Your task to perform on an android device: Go to sound settings Image 0: 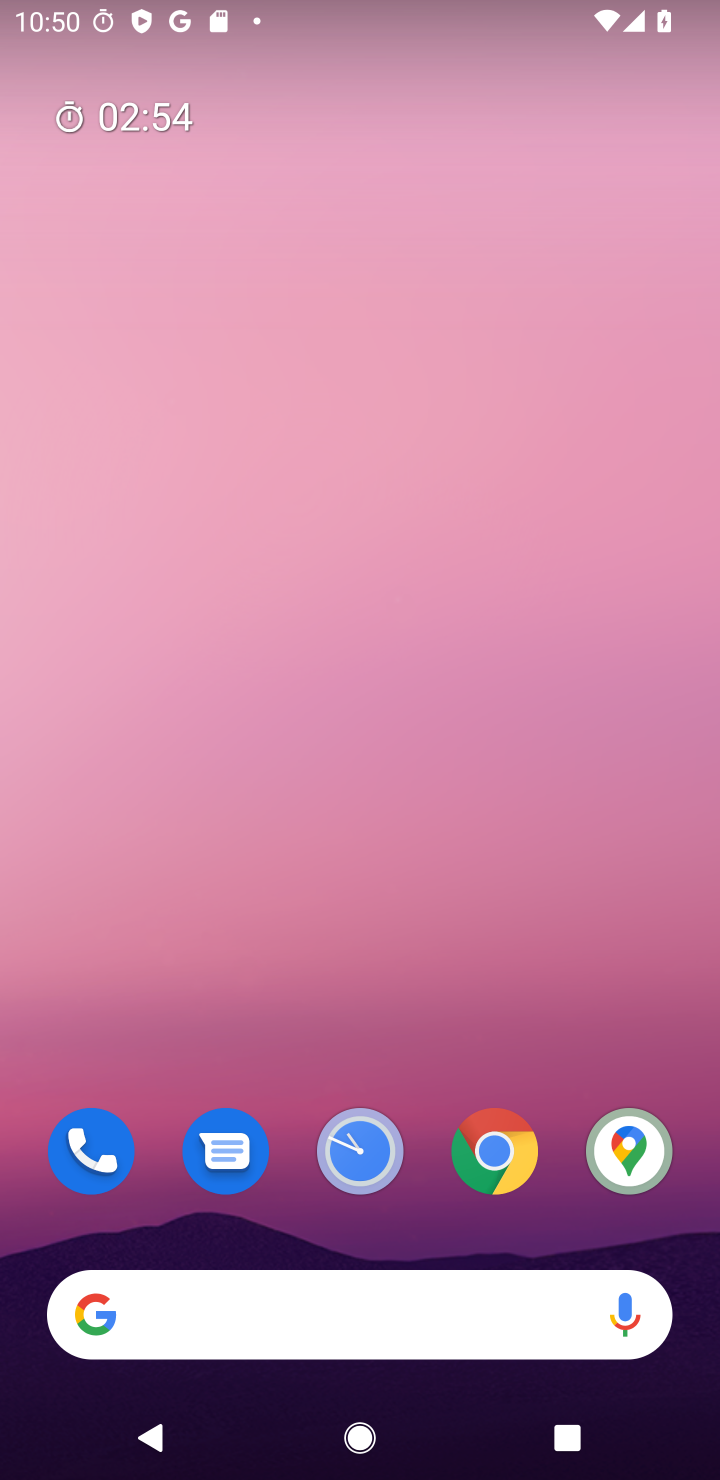
Step 0: drag from (596, 1081) to (537, 157)
Your task to perform on an android device: Go to sound settings Image 1: 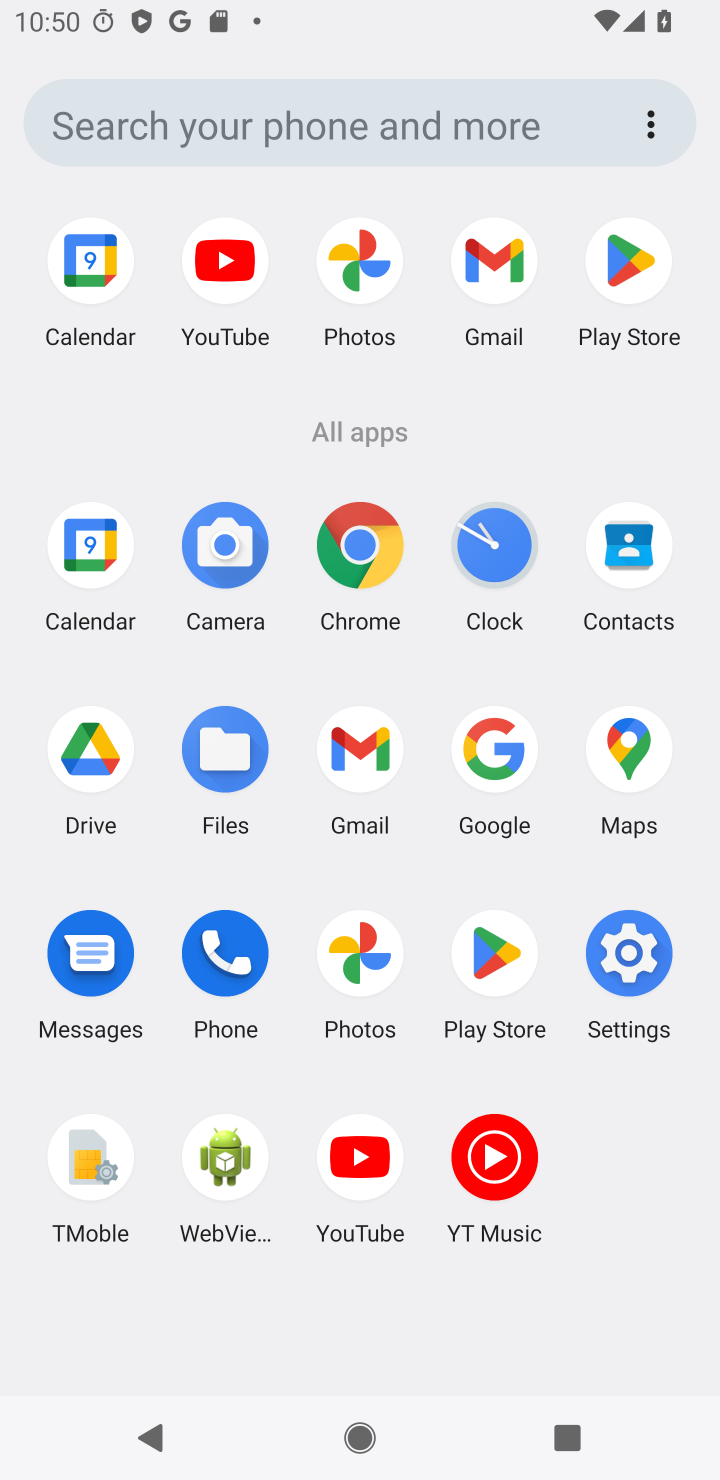
Step 1: click (630, 961)
Your task to perform on an android device: Go to sound settings Image 2: 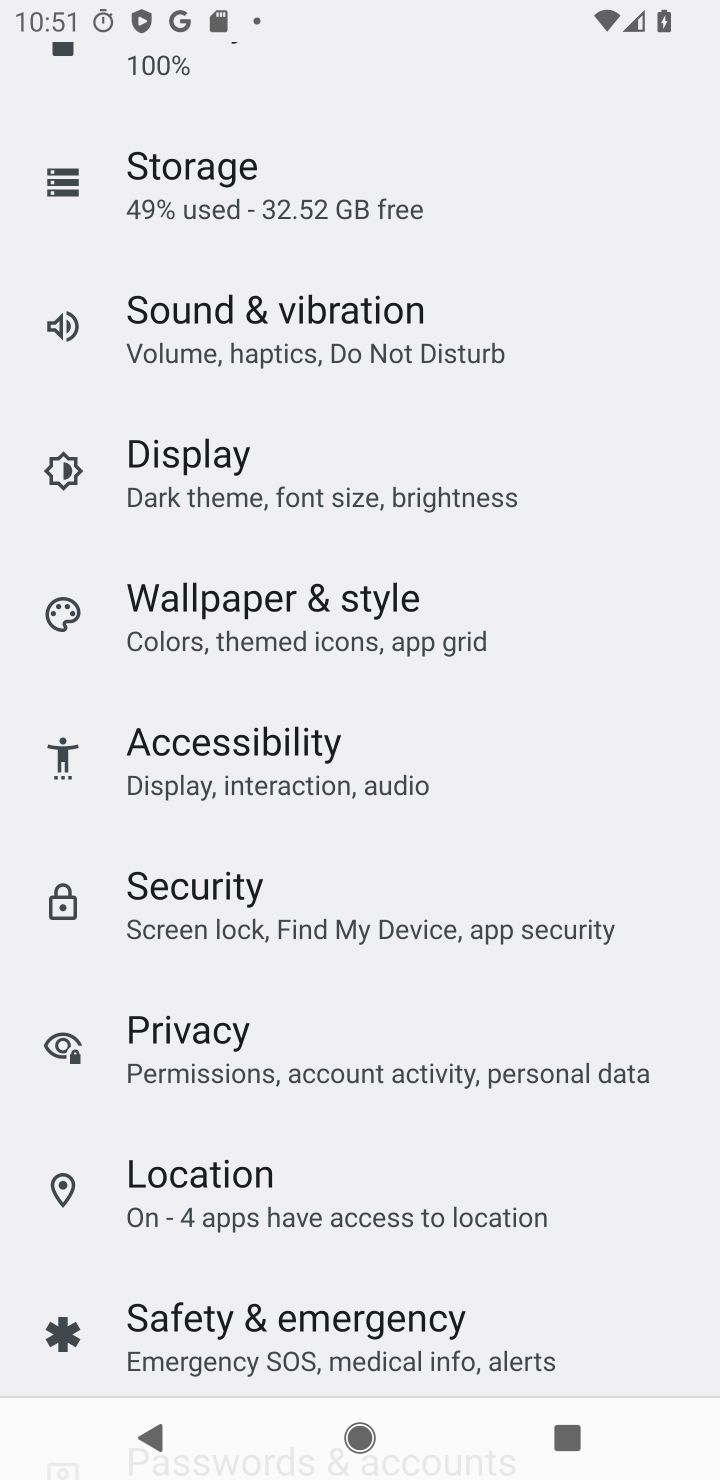
Step 2: drag from (438, 1220) to (277, 630)
Your task to perform on an android device: Go to sound settings Image 3: 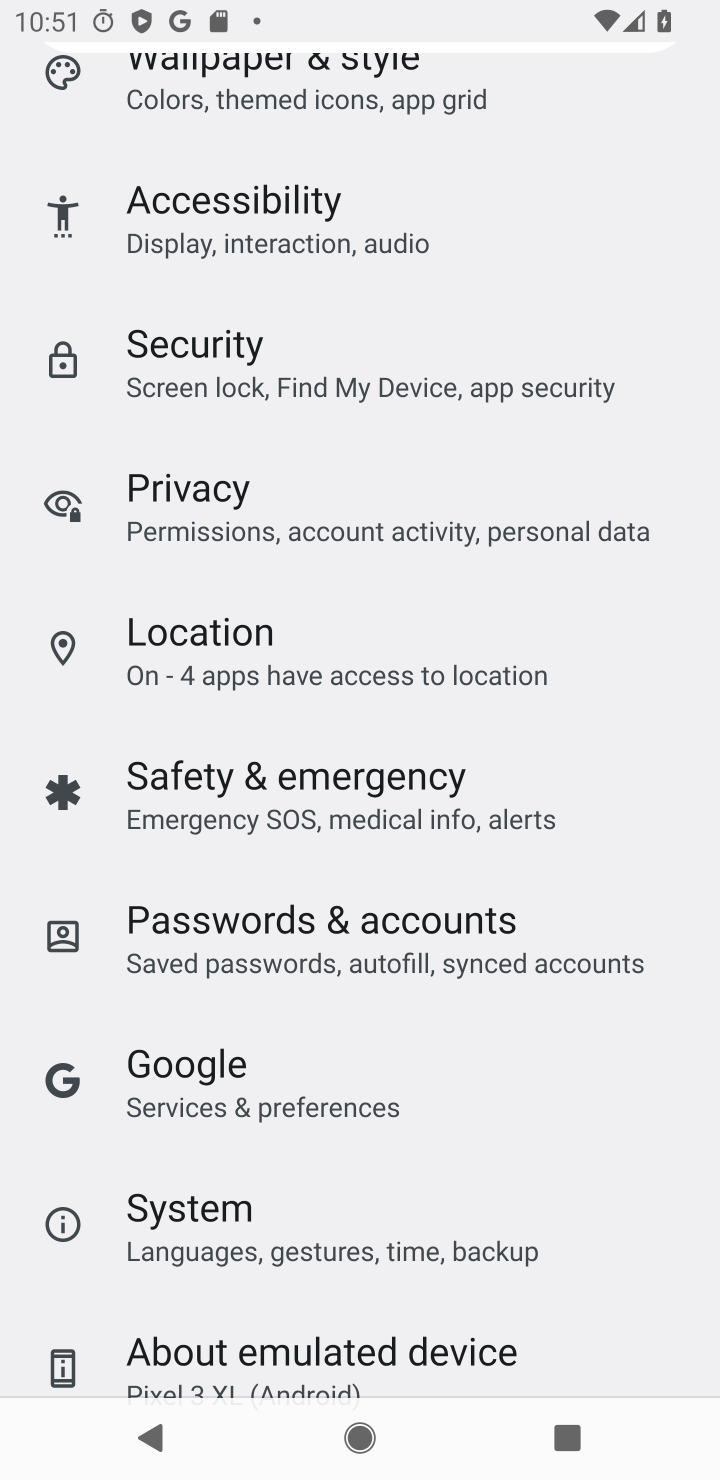
Step 3: drag from (465, 1304) to (127, 387)
Your task to perform on an android device: Go to sound settings Image 4: 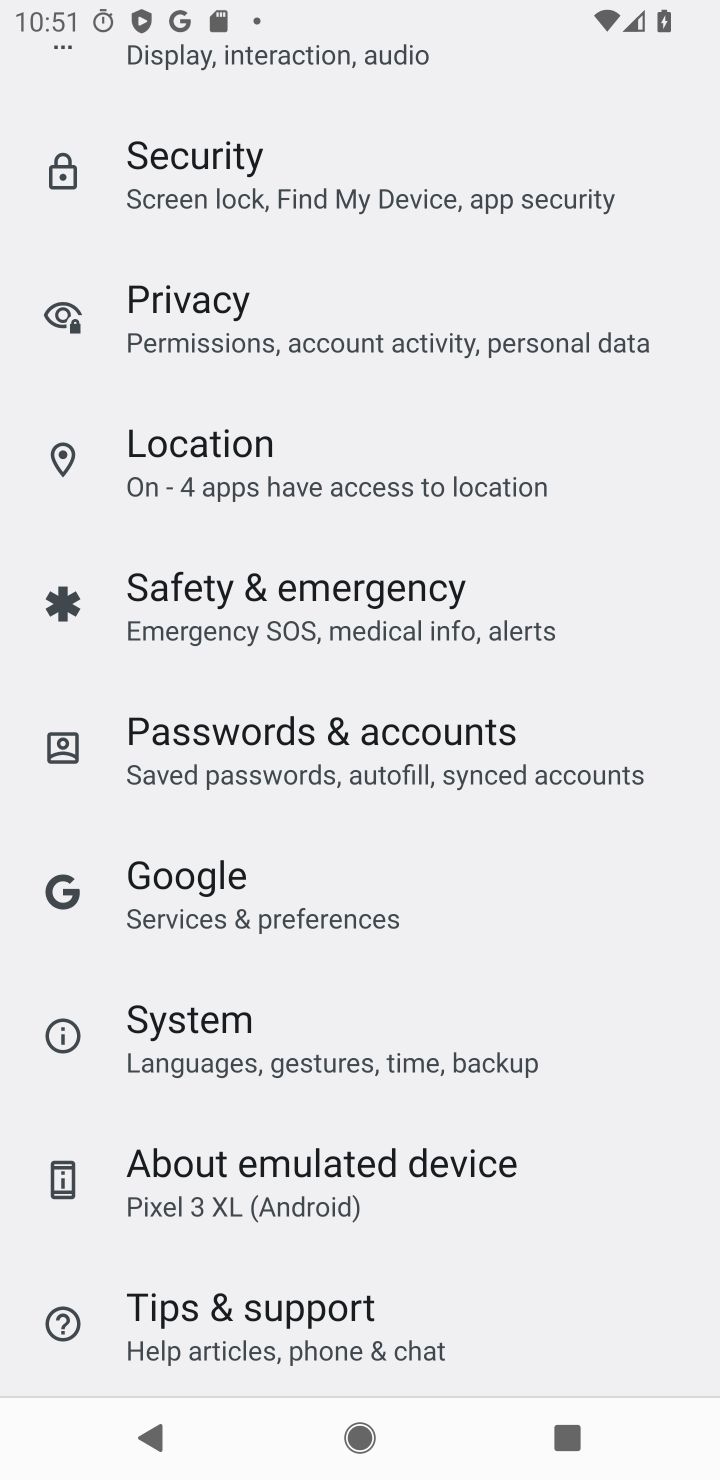
Step 4: drag from (203, 124) to (655, 1119)
Your task to perform on an android device: Go to sound settings Image 5: 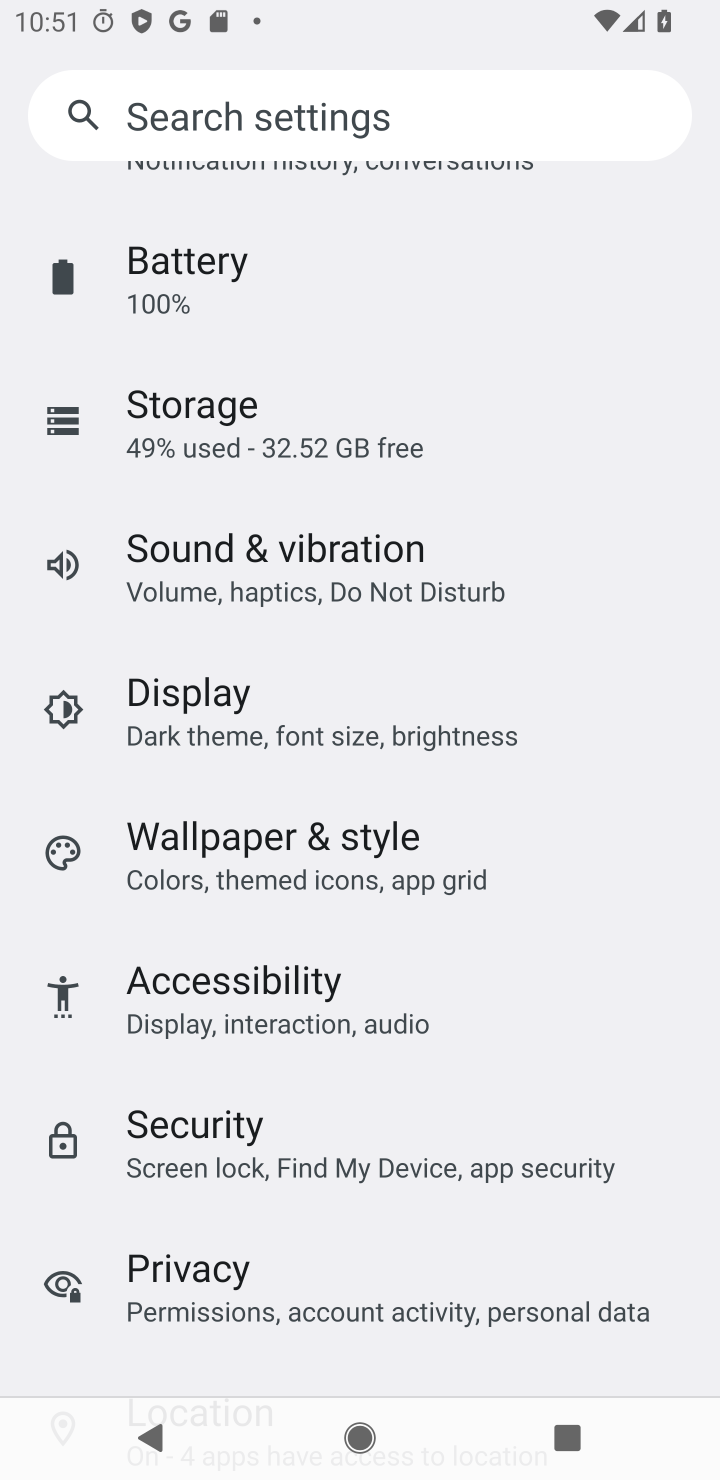
Step 5: click (426, 587)
Your task to perform on an android device: Go to sound settings Image 6: 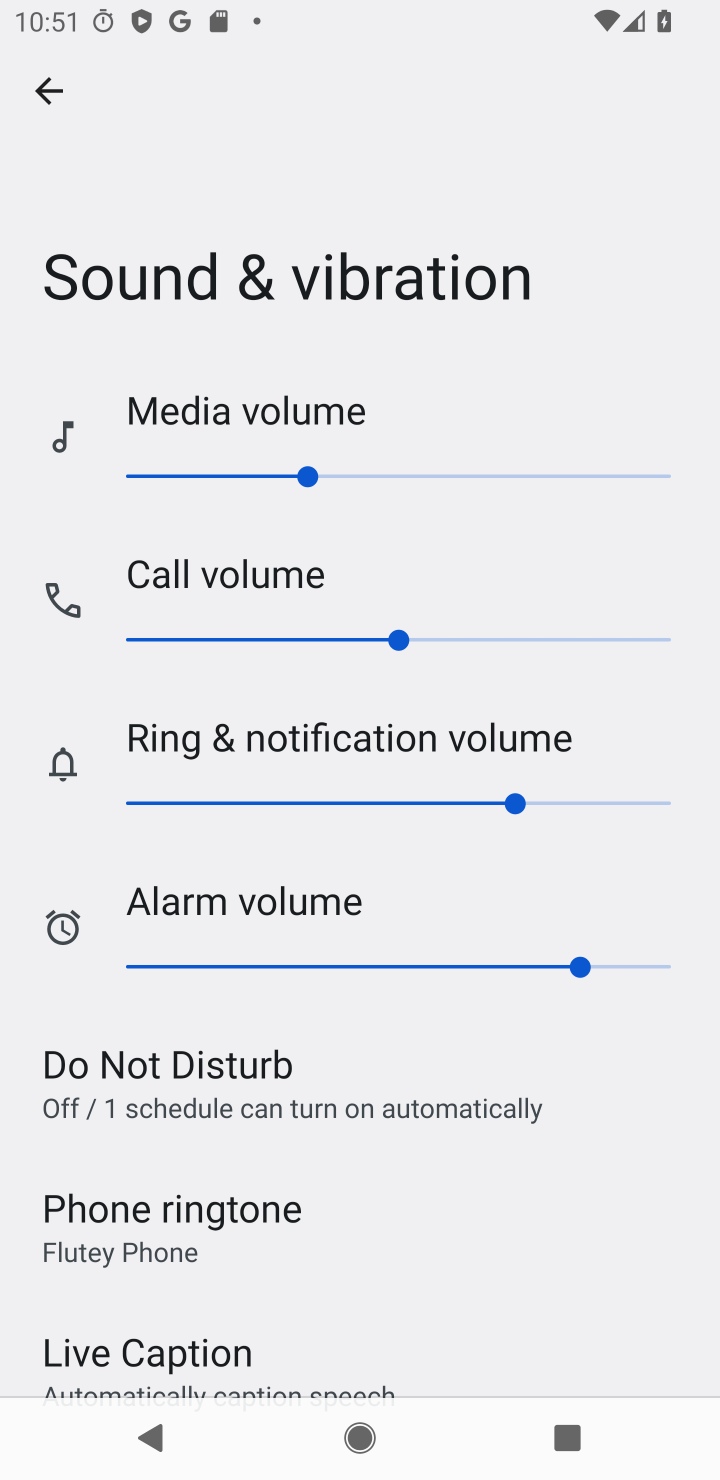
Step 6: task complete